Your task to perform on an android device: Open internet settings Image 0: 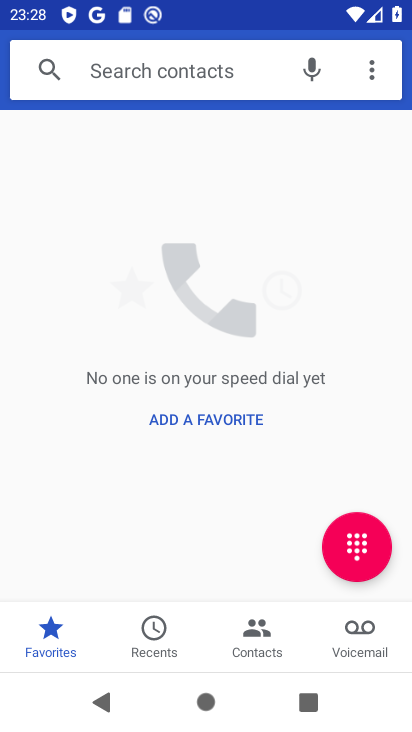
Step 0: press back button
Your task to perform on an android device: Open internet settings Image 1: 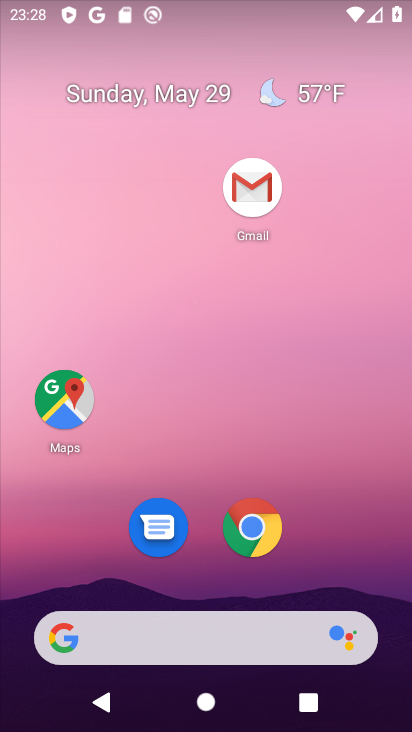
Step 1: drag from (353, 414) to (340, 38)
Your task to perform on an android device: Open internet settings Image 2: 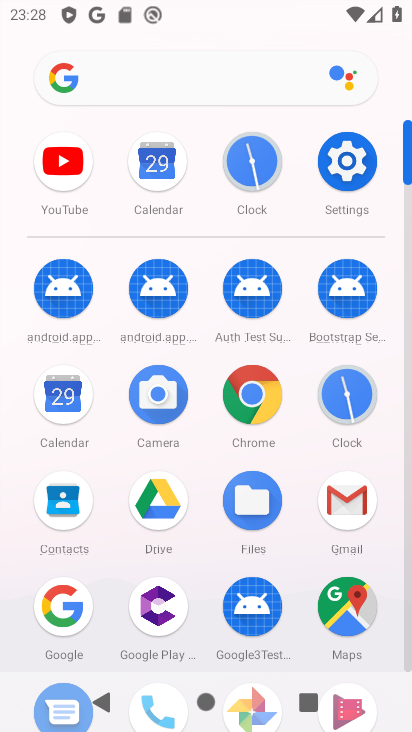
Step 2: click (347, 161)
Your task to perform on an android device: Open internet settings Image 3: 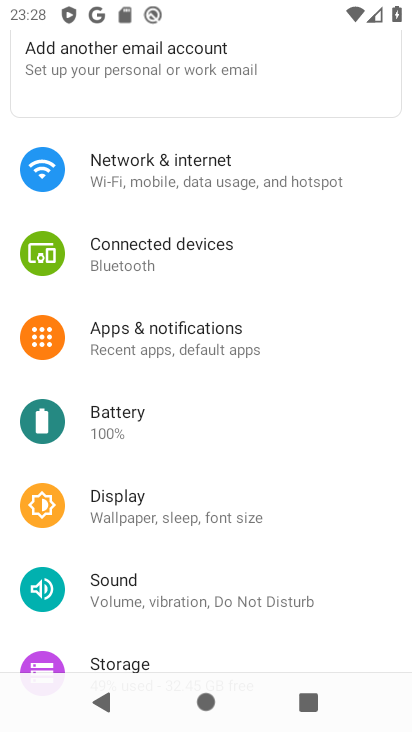
Step 3: click (203, 172)
Your task to perform on an android device: Open internet settings Image 4: 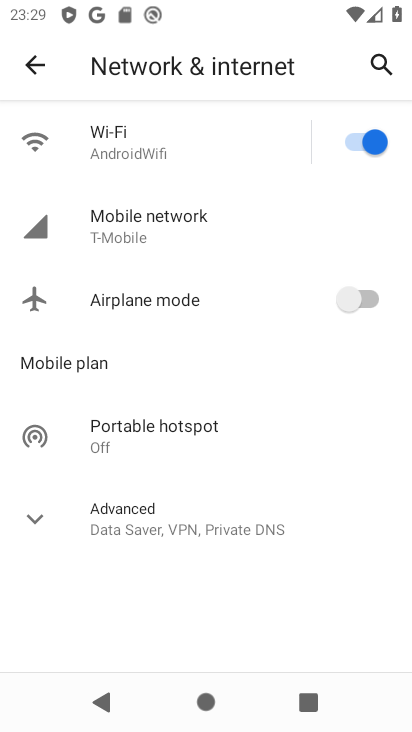
Step 4: click (151, 151)
Your task to perform on an android device: Open internet settings Image 5: 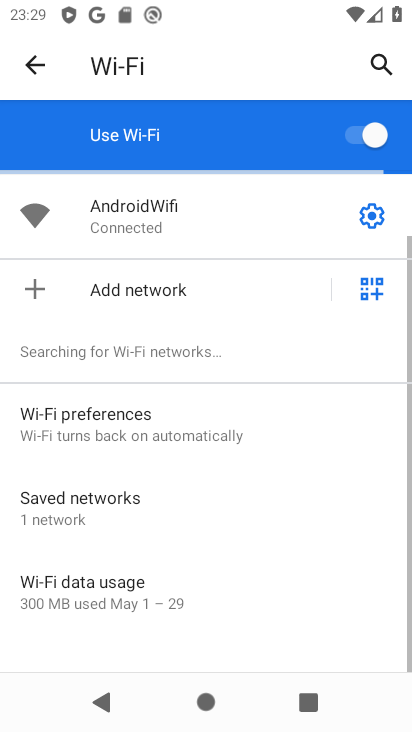
Step 5: task complete